Your task to perform on an android device: check google app version Image 0: 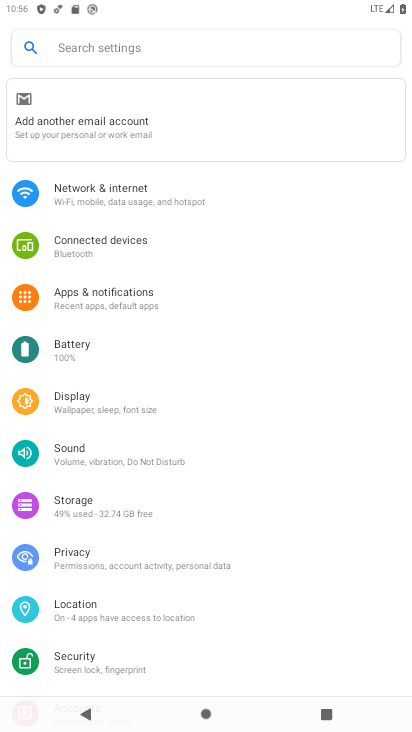
Step 0: drag from (169, 616) to (243, 269)
Your task to perform on an android device: check google app version Image 1: 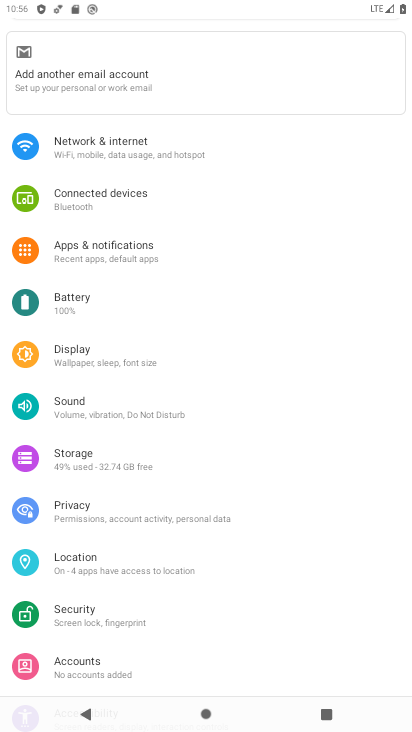
Step 1: press home button
Your task to perform on an android device: check google app version Image 2: 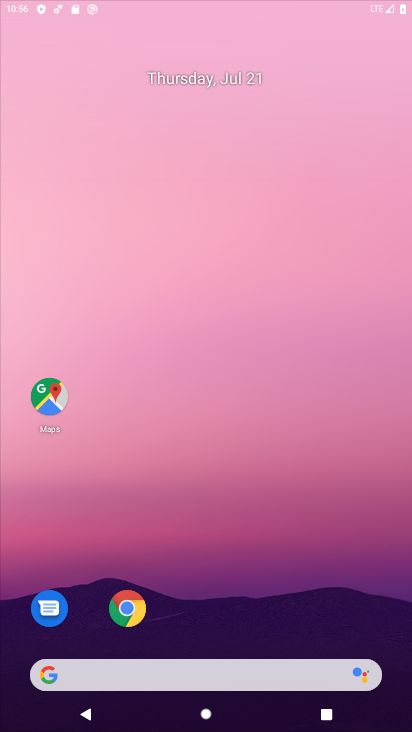
Step 2: drag from (173, 587) to (138, 48)
Your task to perform on an android device: check google app version Image 3: 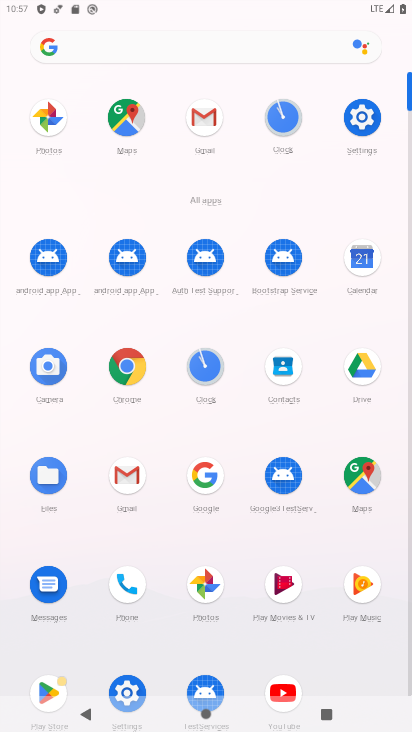
Step 3: click (196, 487)
Your task to perform on an android device: check google app version Image 4: 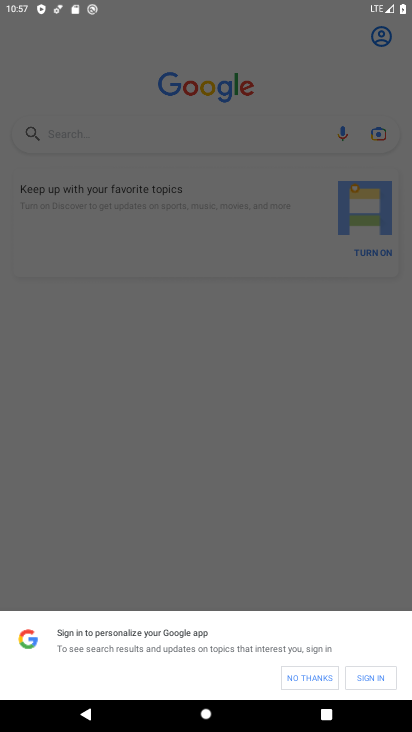
Step 4: drag from (237, 483) to (243, 247)
Your task to perform on an android device: check google app version Image 5: 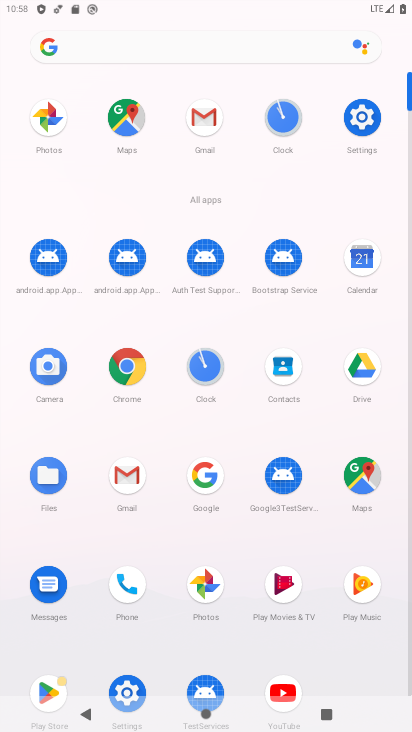
Step 5: drag from (237, 560) to (320, 145)
Your task to perform on an android device: check google app version Image 6: 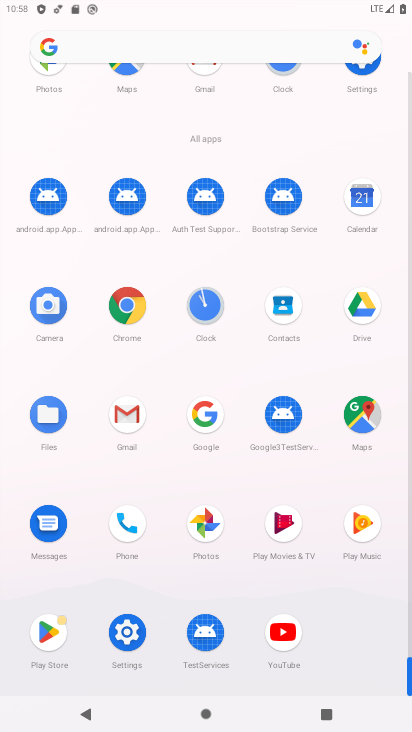
Step 6: click (196, 402)
Your task to perform on an android device: check google app version Image 7: 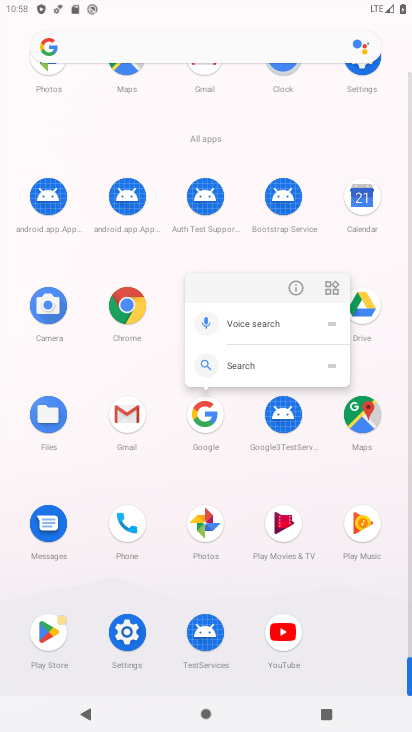
Step 7: click (295, 283)
Your task to perform on an android device: check google app version Image 8: 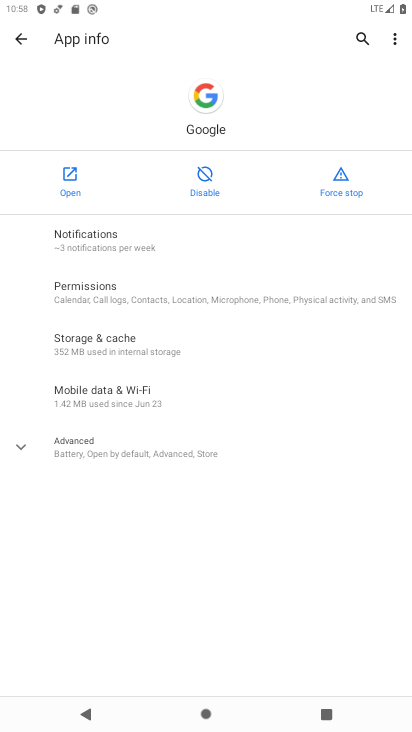
Step 8: click (68, 200)
Your task to perform on an android device: check google app version Image 9: 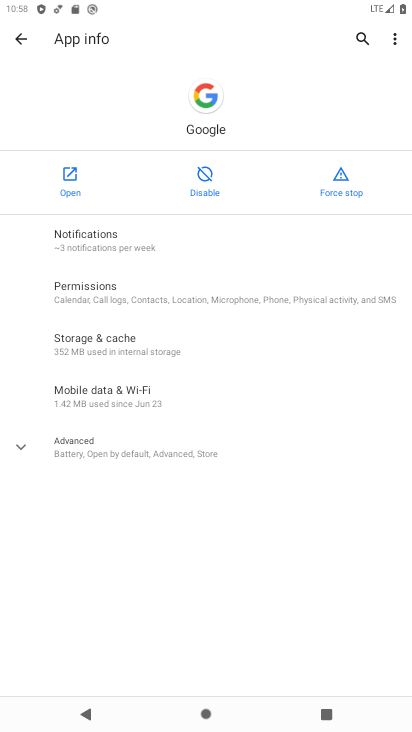
Step 9: click (68, 200)
Your task to perform on an android device: check google app version Image 10: 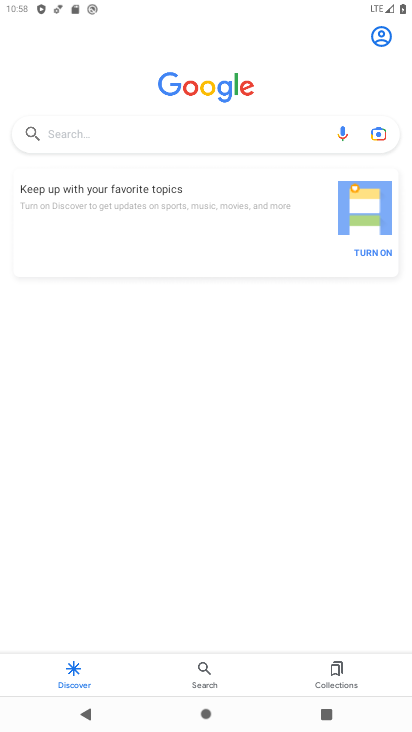
Step 10: drag from (383, 34) to (353, 176)
Your task to perform on an android device: check google app version Image 11: 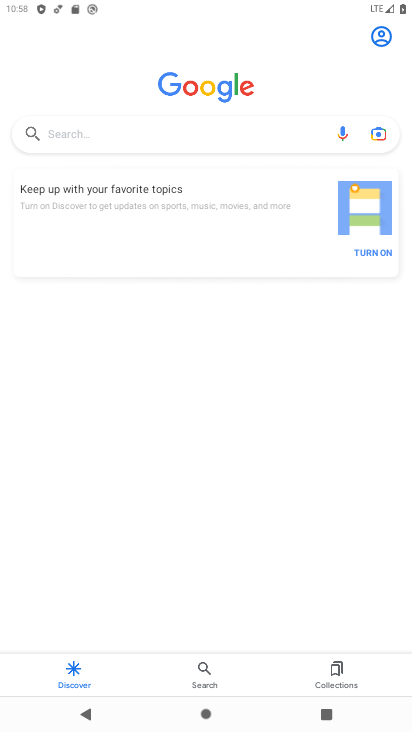
Step 11: click (380, 53)
Your task to perform on an android device: check google app version Image 12: 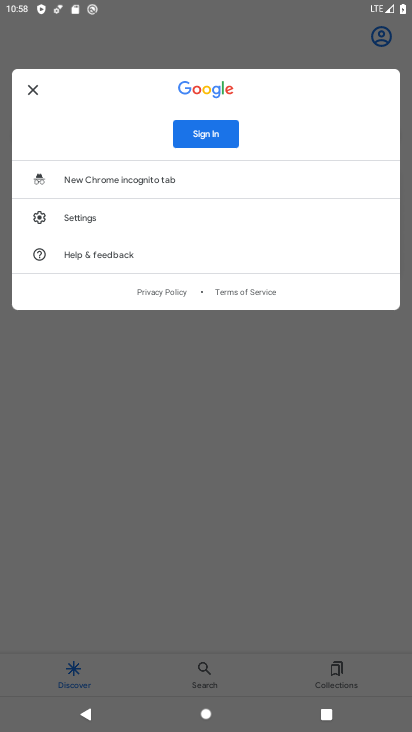
Step 12: click (109, 225)
Your task to perform on an android device: check google app version Image 13: 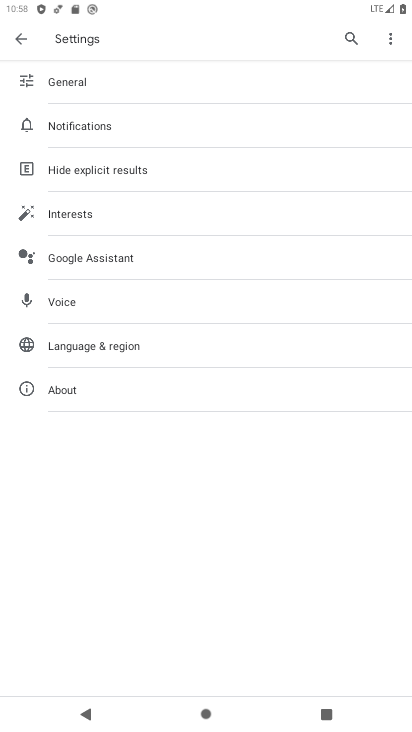
Step 13: click (88, 382)
Your task to perform on an android device: check google app version Image 14: 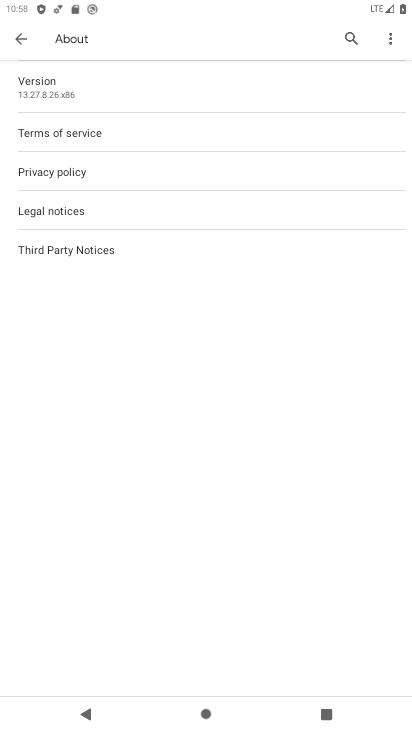
Step 14: click (70, 79)
Your task to perform on an android device: check google app version Image 15: 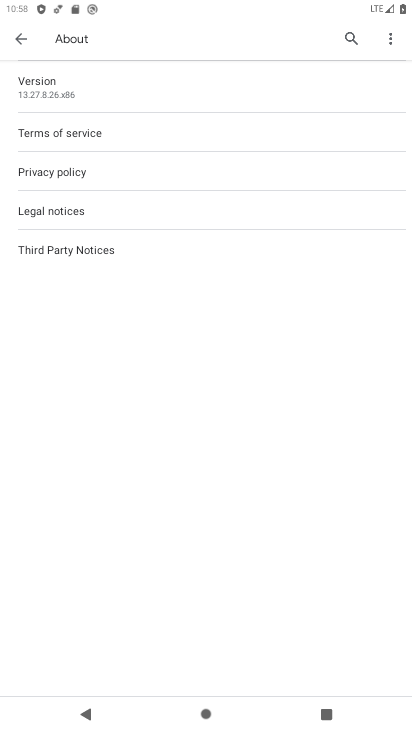
Step 15: task complete